Your task to perform on an android device: turn on sleep mode Image 0: 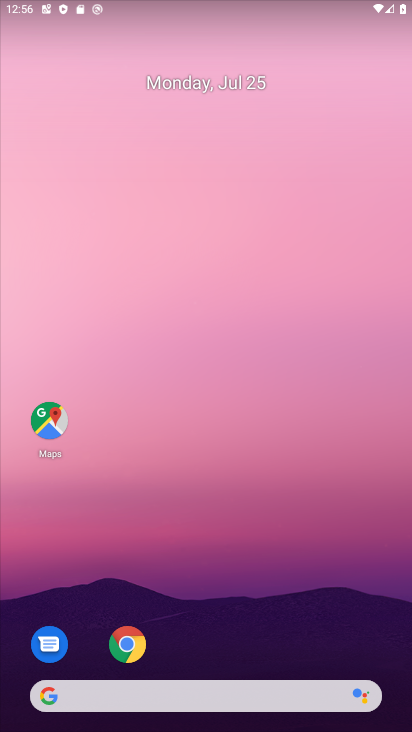
Step 0: drag from (292, 602) to (299, 13)
Your task to perform on an android device: turn on sleep mode Image 1: 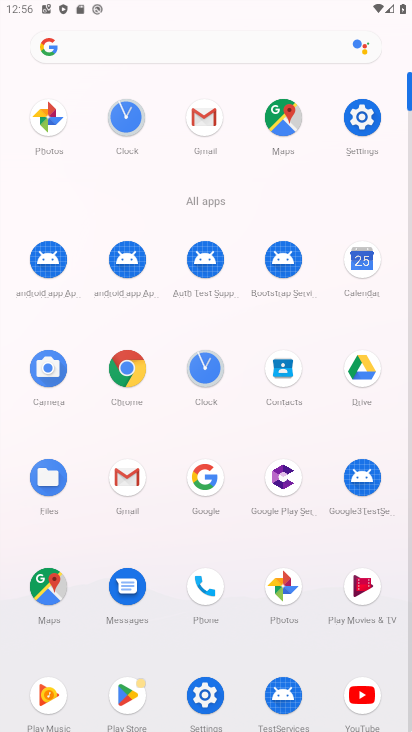
Step 1: click (364, 122)
Your task to perform on an android device: turn on sleep mode Image 2: 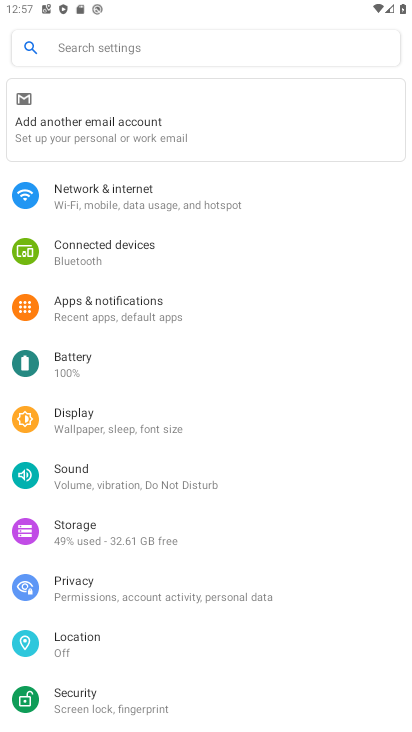
Step 2: click (112, 415)
Your task to perform on an android device: turn on sleep mode Image 3: 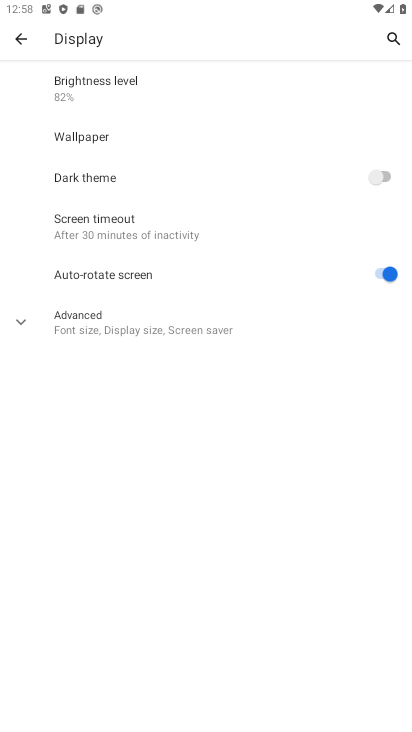
Step 3: click (87, 215)
Your task to perform on an android device: turn on sleep mode Image 4: 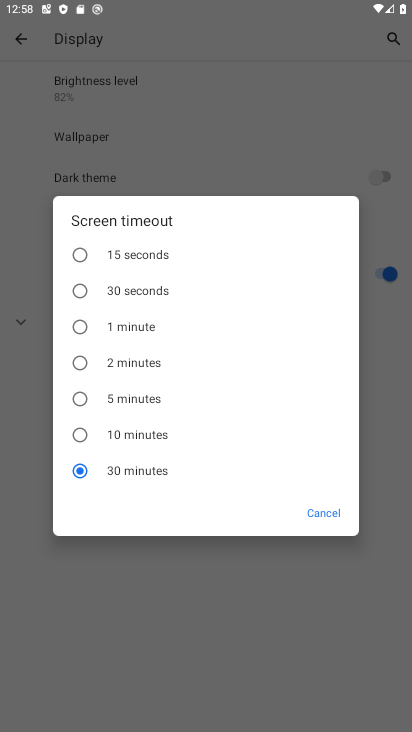
Step 4: task complete